Your task to perform on an android device: Open calendar and show me the second week of next month Image 0: 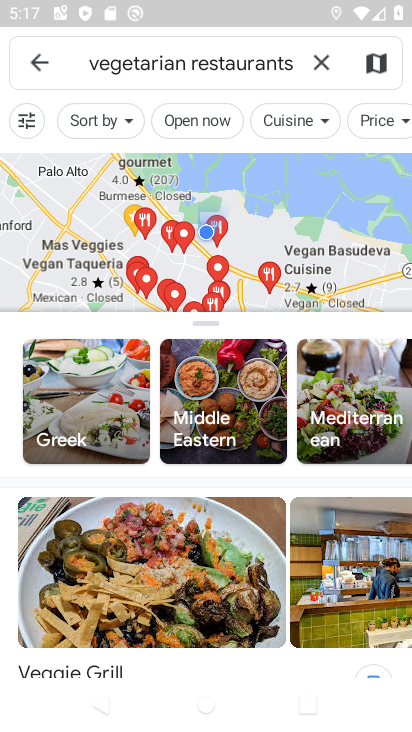
Step 0: press home button
Your task to perform on an android device: Open calendar and show me the second week of next month Image 1: 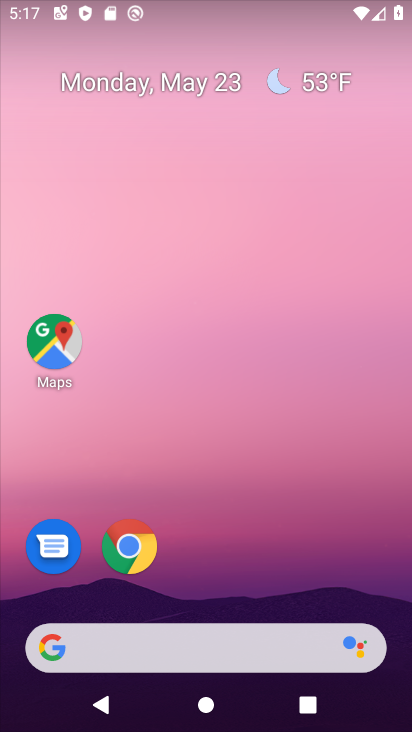
Step 1: click (174, 82)
Your task to perform on an android device: Open calendar and show me the second week of next month Image 2: 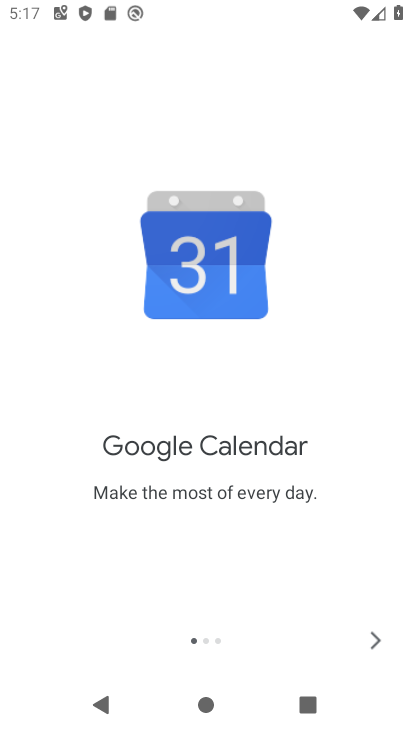
Step 2: click (377, 640)
Your task to perform on an android device: Open calendar and show me the second week of next month Image 3: 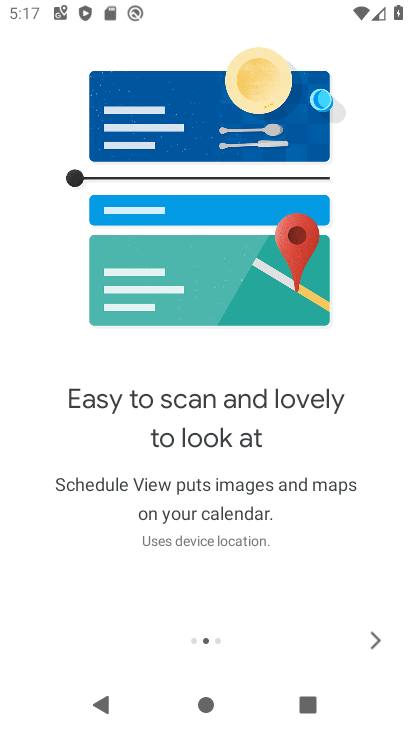
Step 3: click (377, 640)
Your task to perform on an android device: Open calendar and show me the second week of next month Image 4: 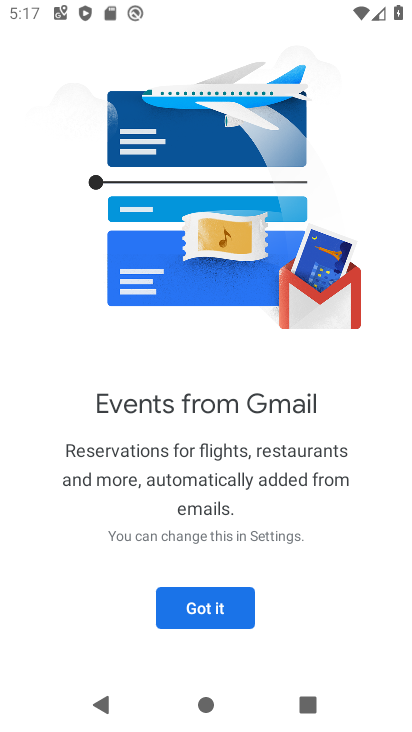
Step 4: click (195, 597)
Your task to perform on an android device: Open calendar and show me the second week of next month Image 5: 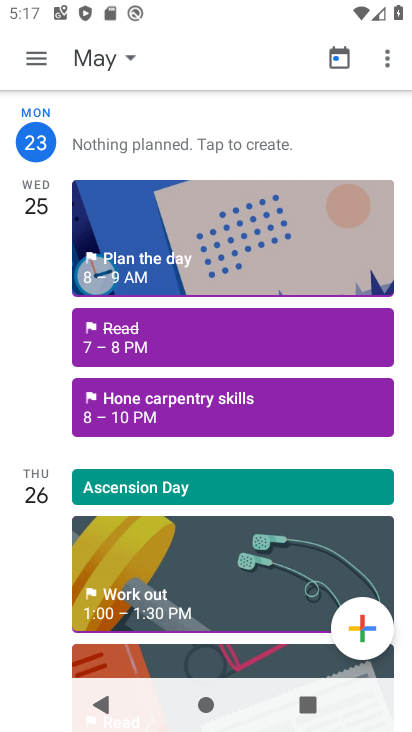
Step 5: click (41, 59)
Your task to perform on an android device: Open calendar and show me the second week of next month Image 6: 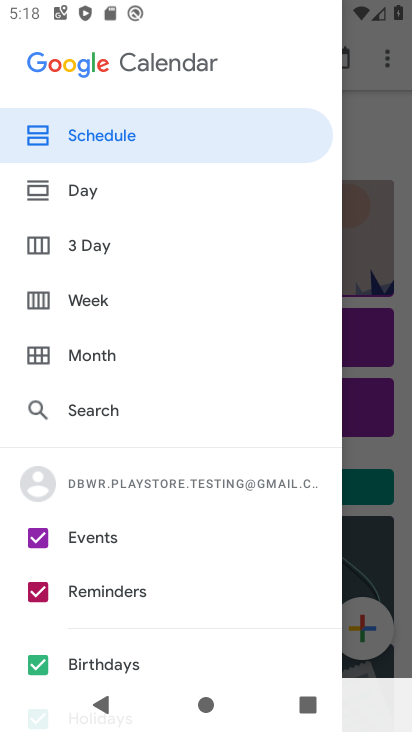
Step 6: click (100, 305)
Your task to perform on an android device: Open calendar and show me the second week of next month Image 7: 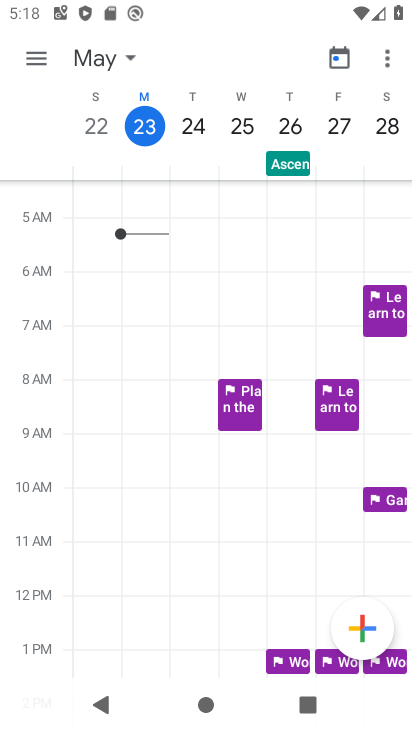
Step 7: click (131, 57)
Your task to perform on an android device: Open calendar and show me the second week of next month Image 8: 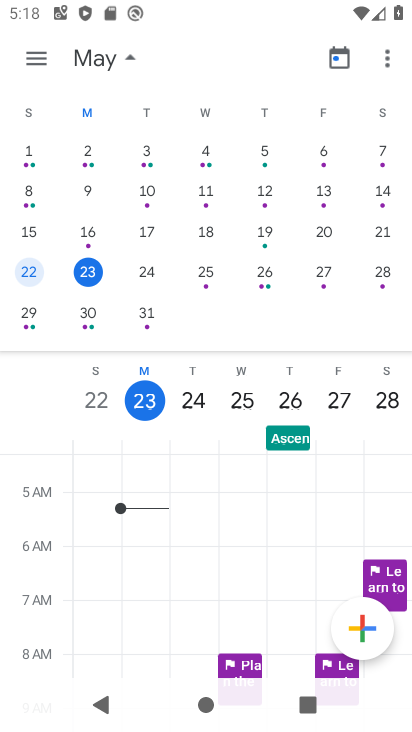
Step 8: drag from (378, 259) to (46, 252)
Your task to perform on an android device: Open calendar and show me the second week of next month Image 9: 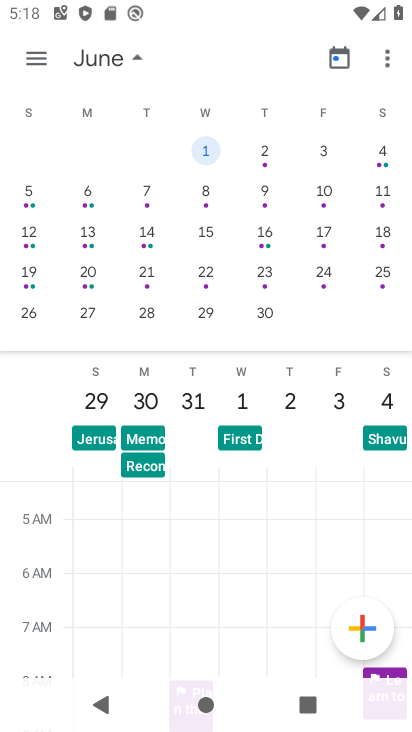
Step 9: click (209, 193)
Your task to perform on an android device: Open calendar and show me the second week of next month Image 10: 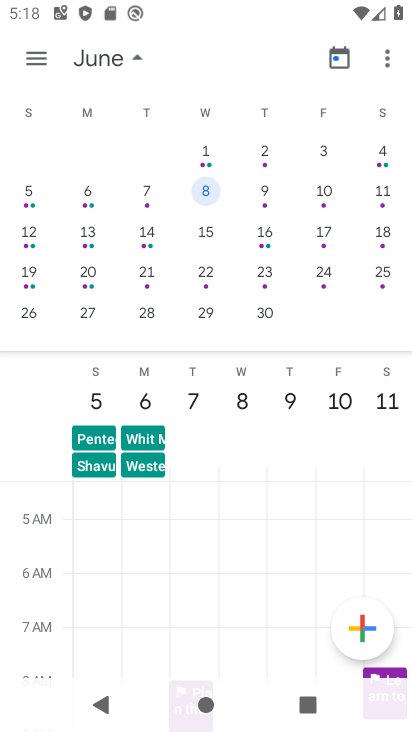
Step 10: task complete